Your task to perform on an android device: Open location settings Image 0: 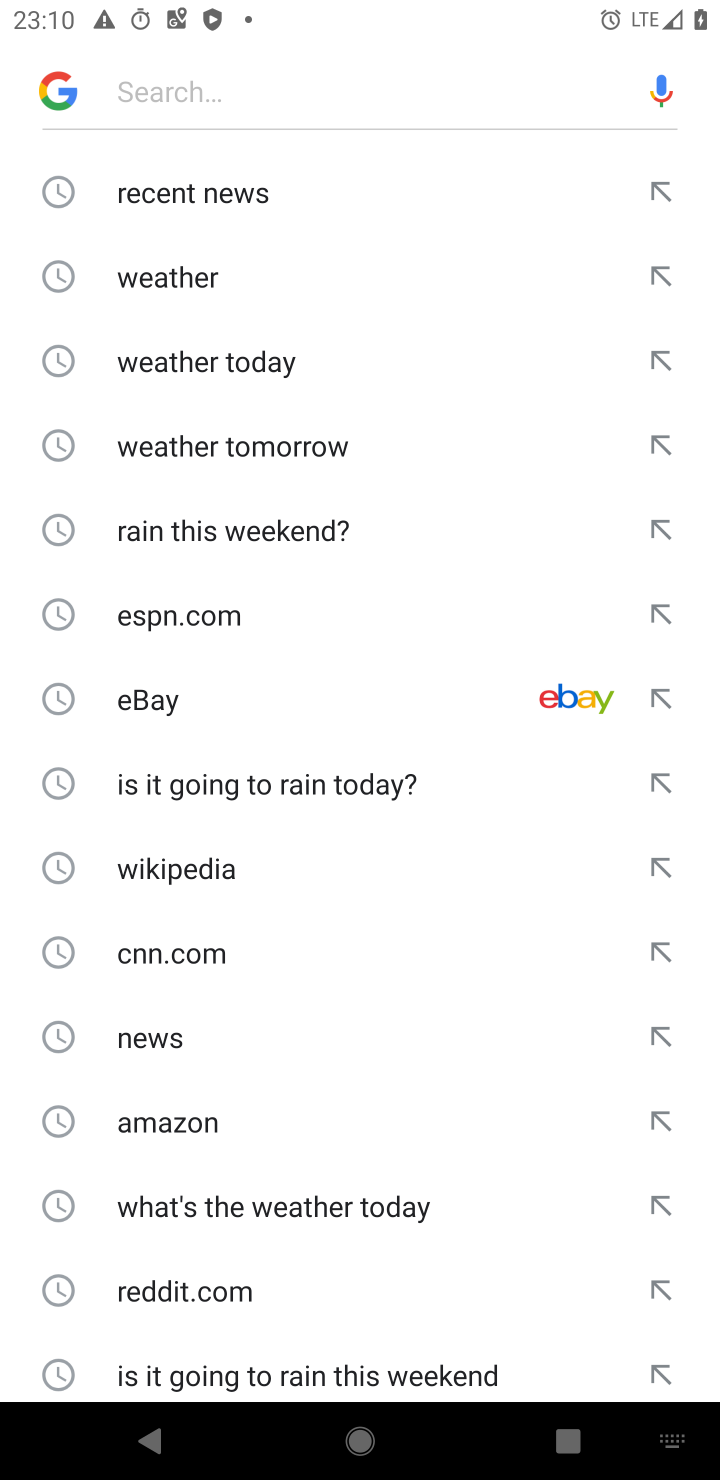
Step 0: press home button
Your task to perform on an android device: Open location settings Image 1: 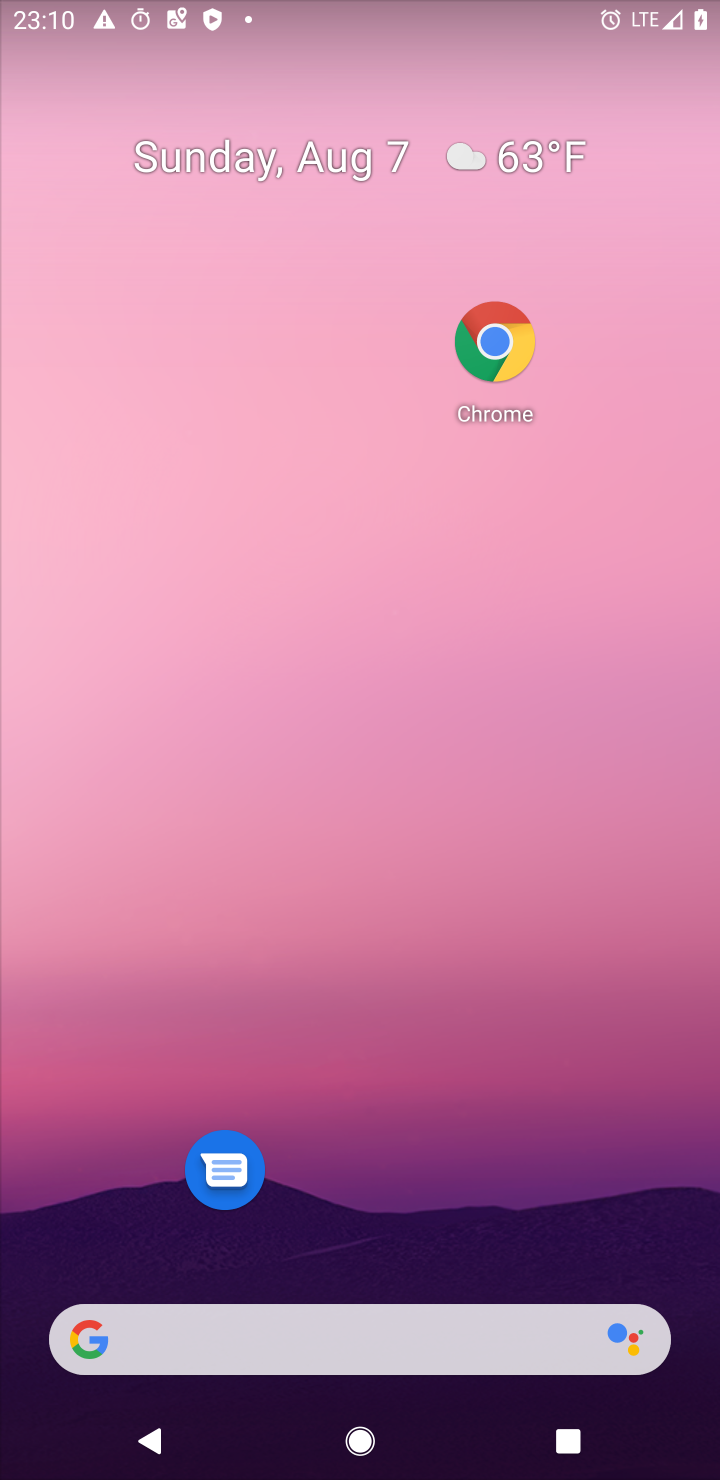
Step 1: drag from (425, 1332) to (394, 49)
Your task to perform on an android device: Open location settings Image 2: 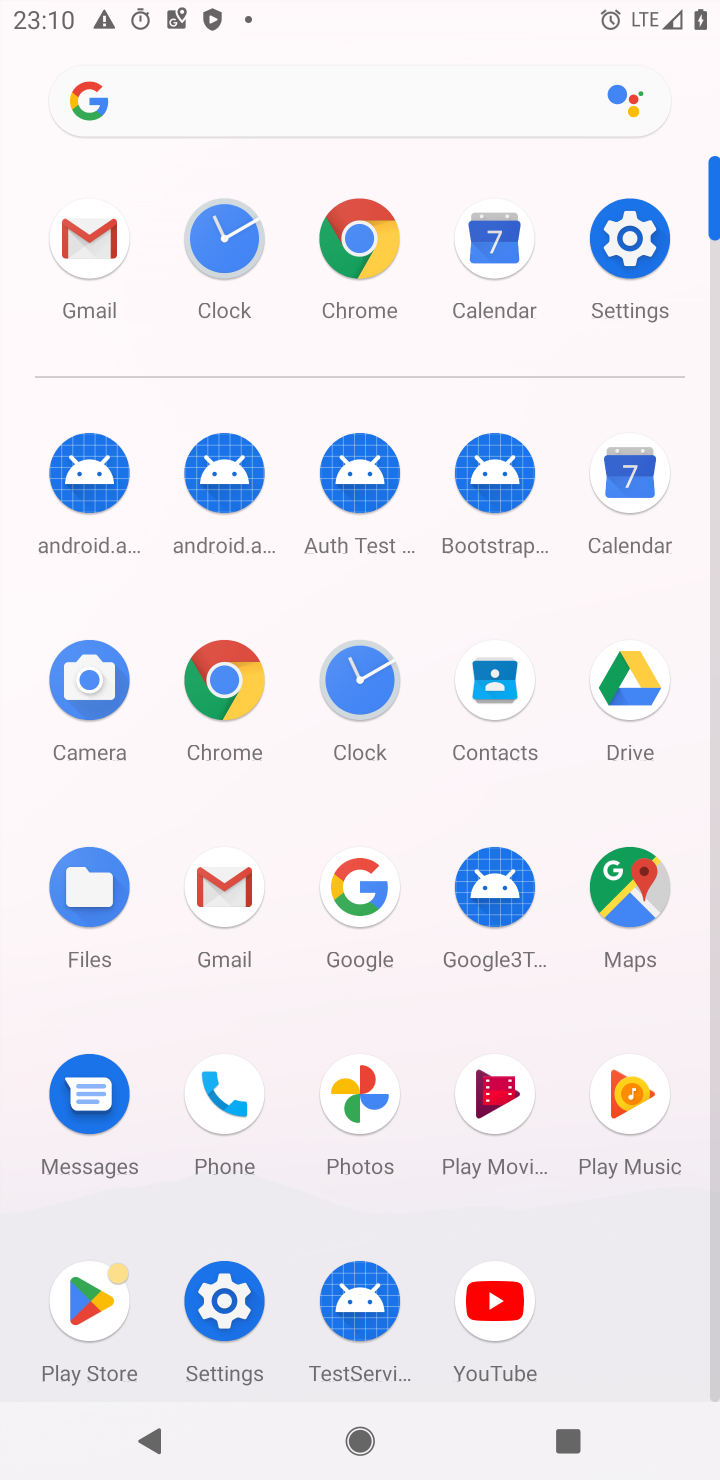
Step 2: click (642, 251)
Your task to perform on an android device: Open location settings Image 3: 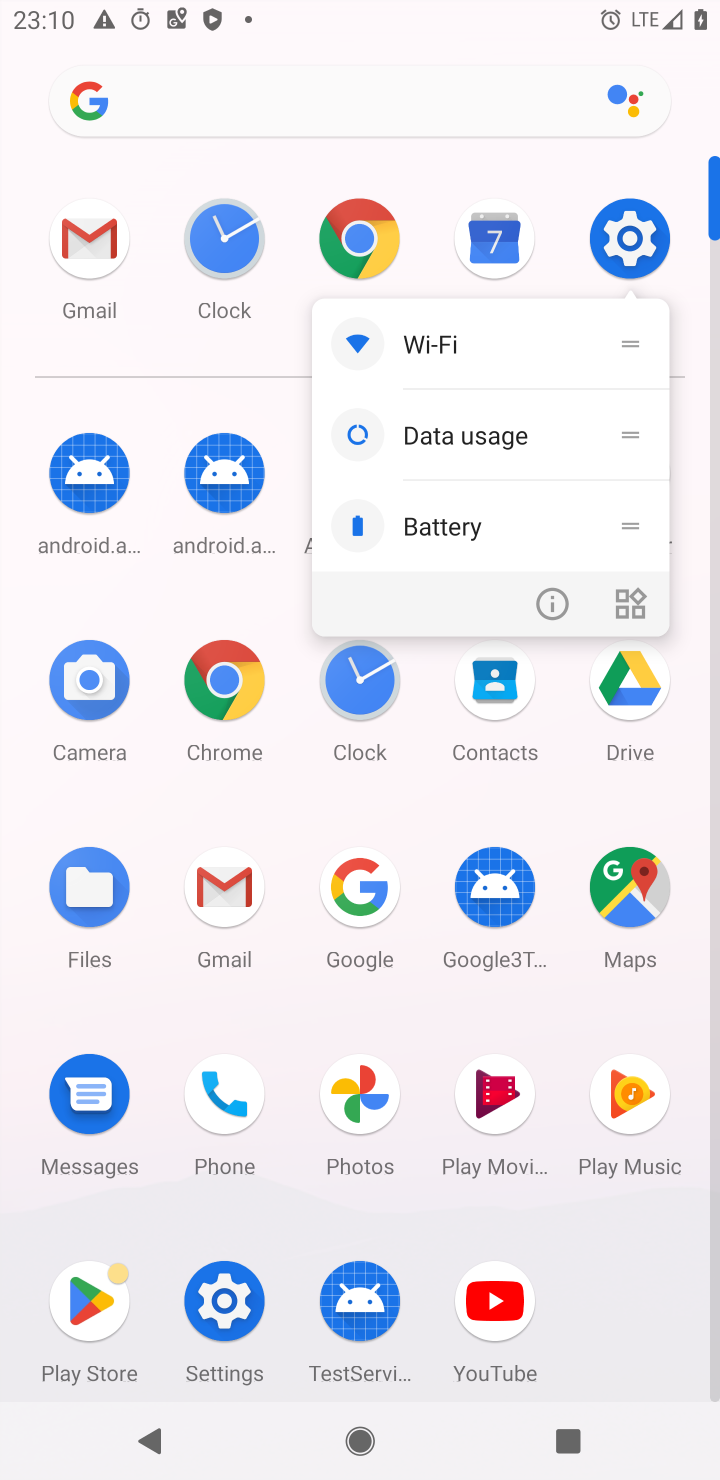
Step 3: click (639, 252)
Your task to perform on an android device: Open location settings Image 4: 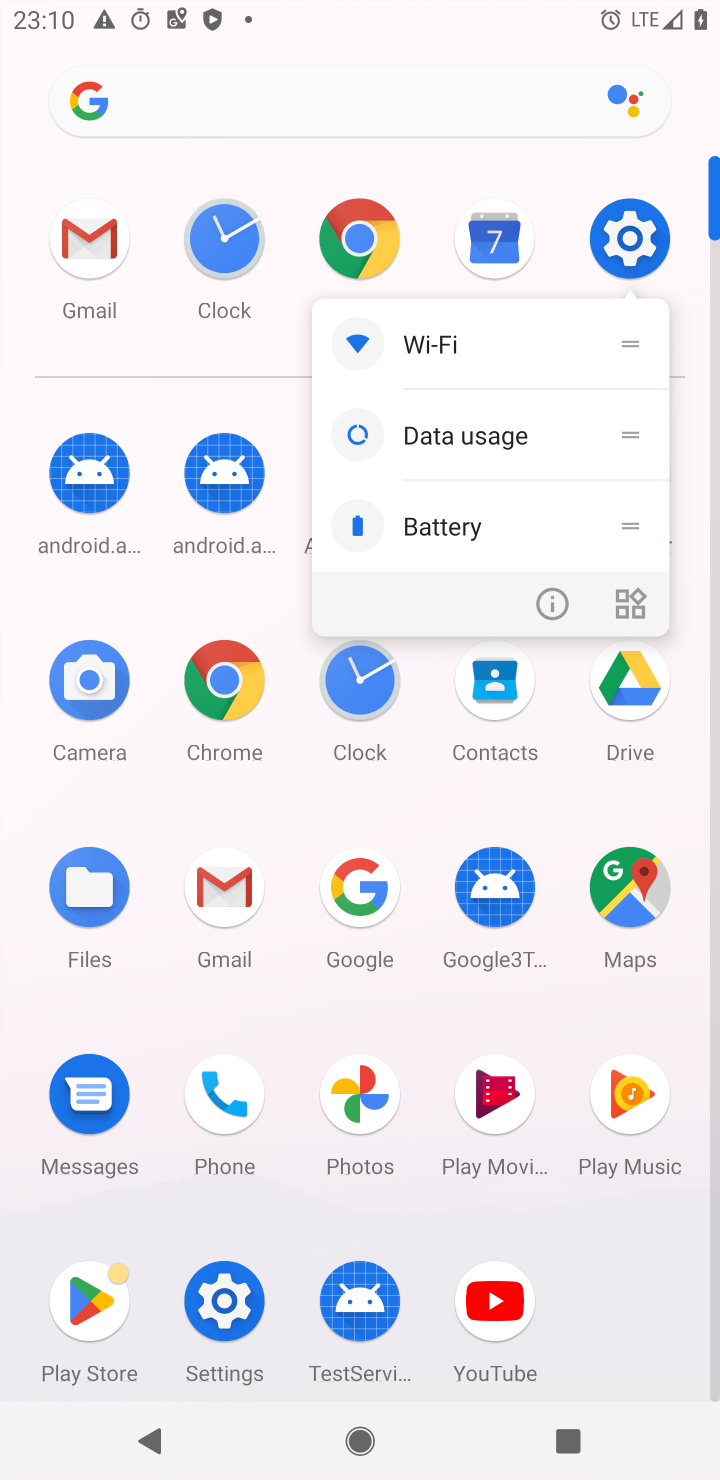
Step 4: click (635, 253)
Your task to perform on an android device: Open location settings Image 5: 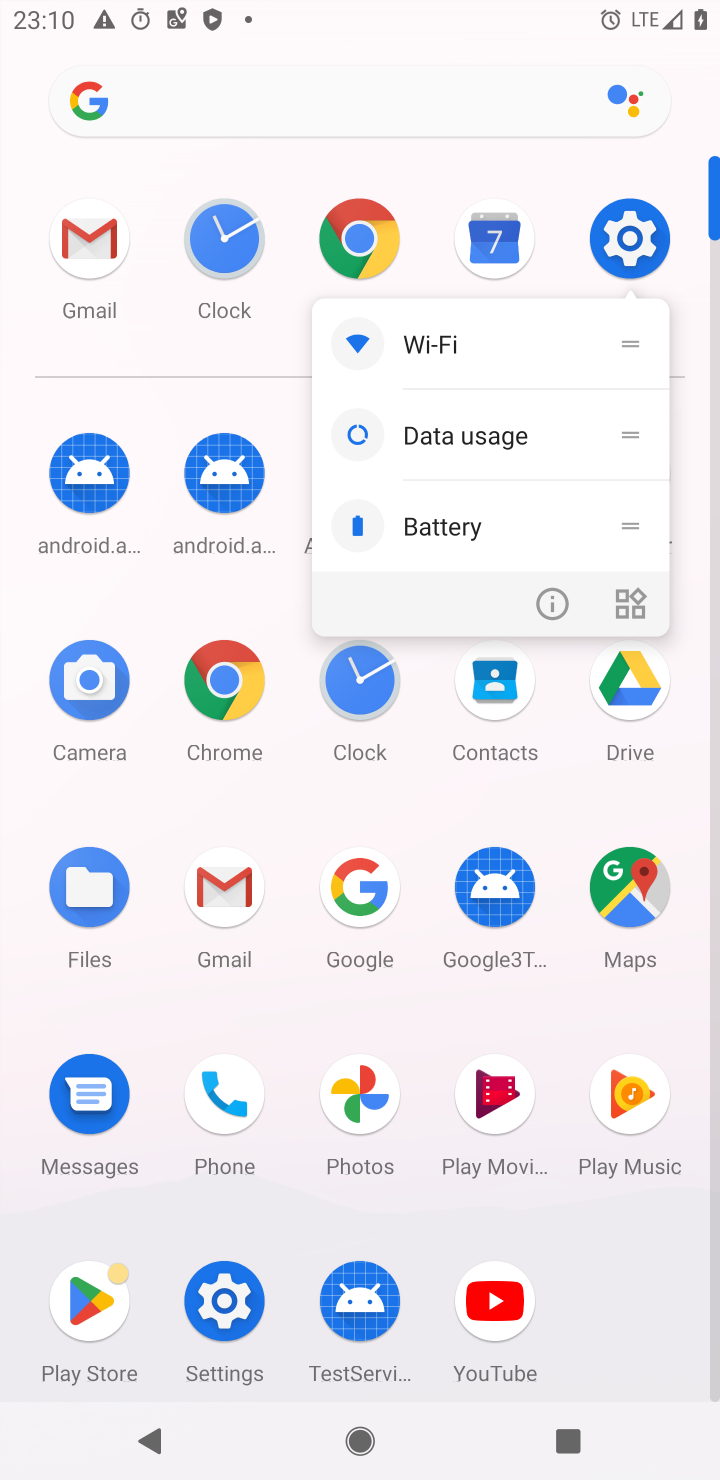
Step 5: click (635, 253)
Your task to perform on an android device: Open location settings Image 6: 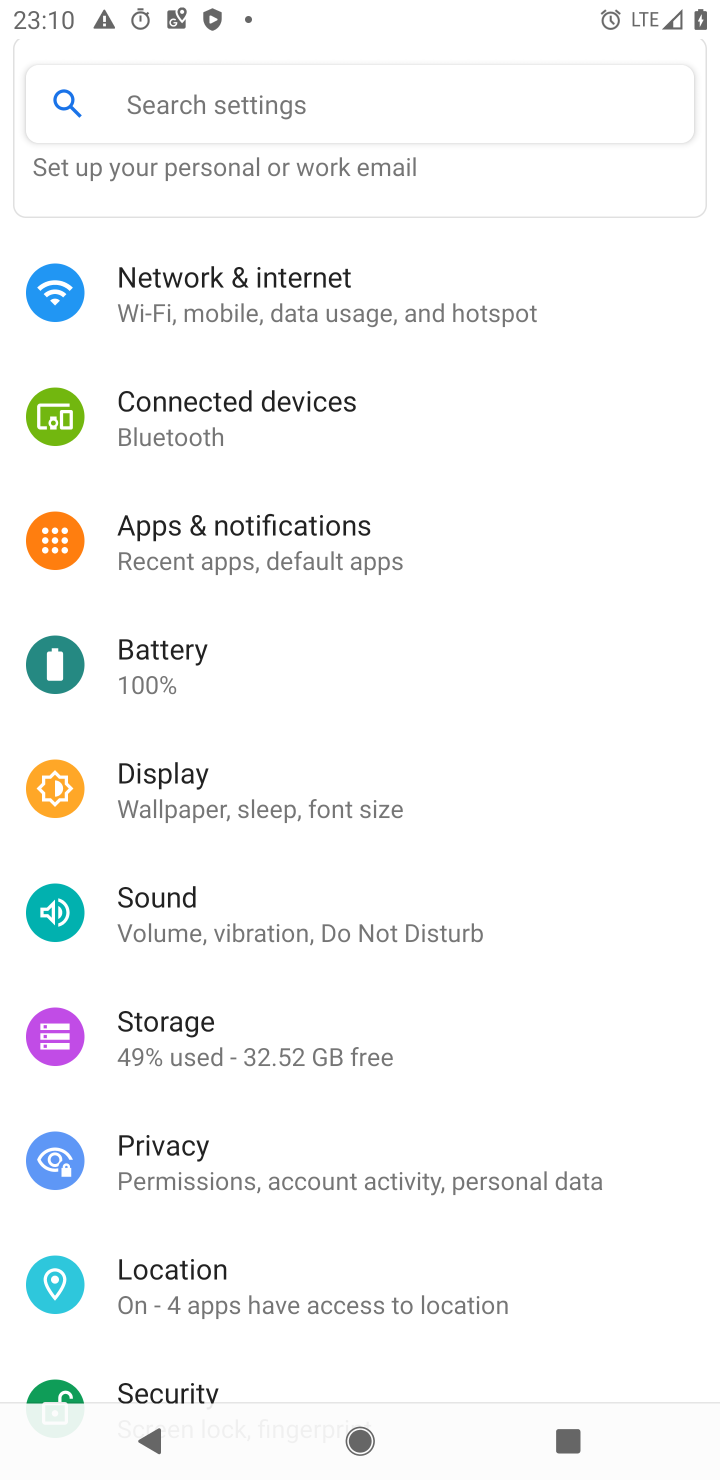
Step 6: click (311, 1305)
Your task to perform on an android device: Open location settings Image 7: 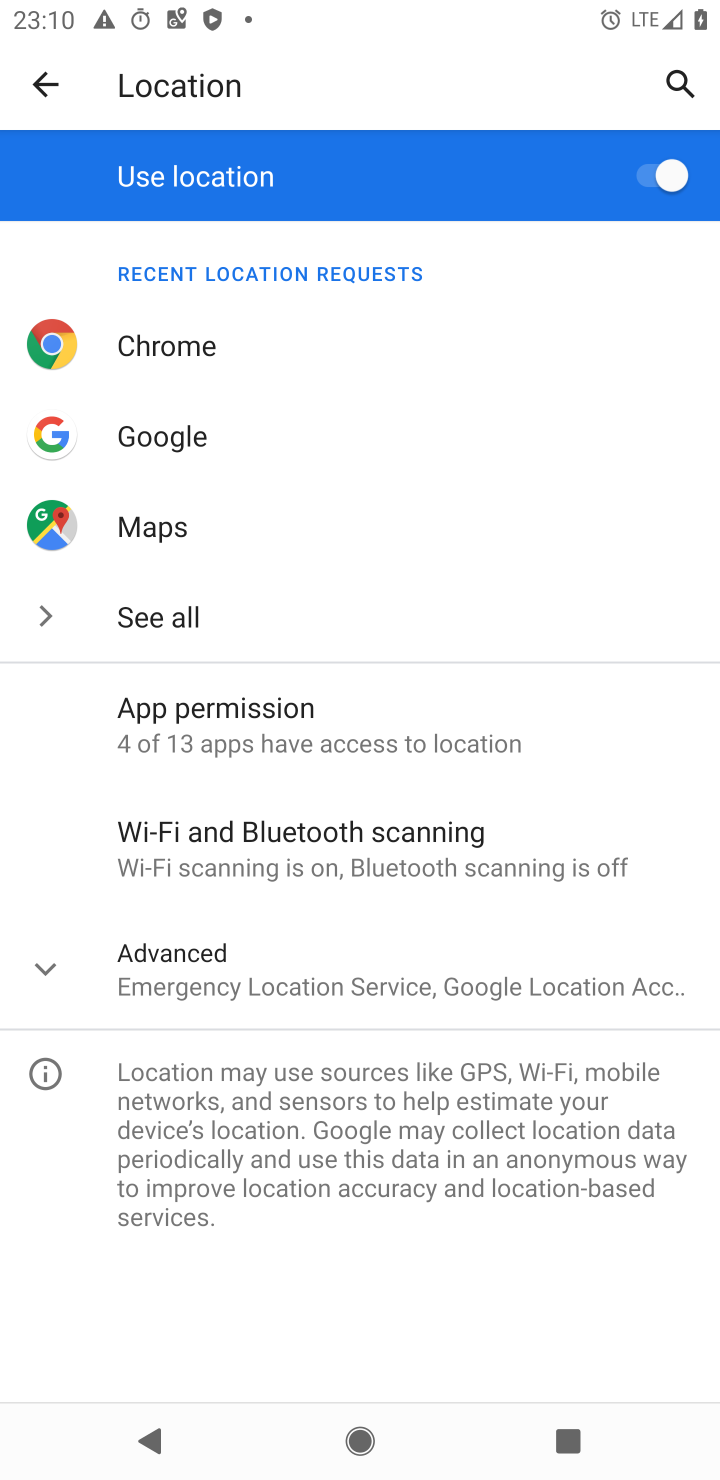
Step 7: task complete